Your task to perform on an android device: Toggle the flashlight Image 0: 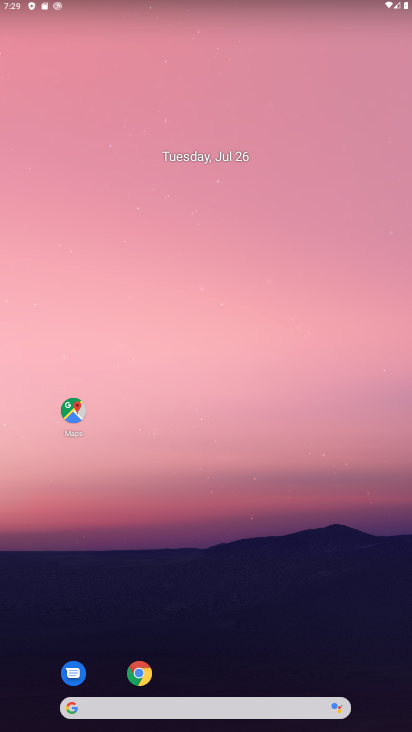
Step 0: drag from (339, 676) to (152, 0)
Your task to perform on an android device: Toggle the flashlight Image 1: 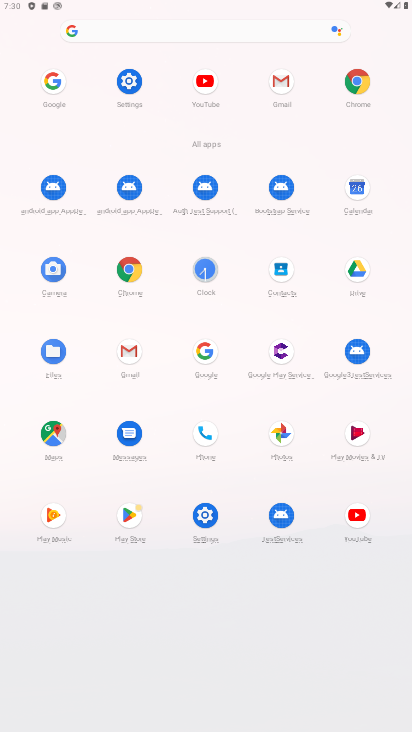
Step 1: click (208, 518)
Your task to perform on an android device: Toggle the flashlight Image 2: 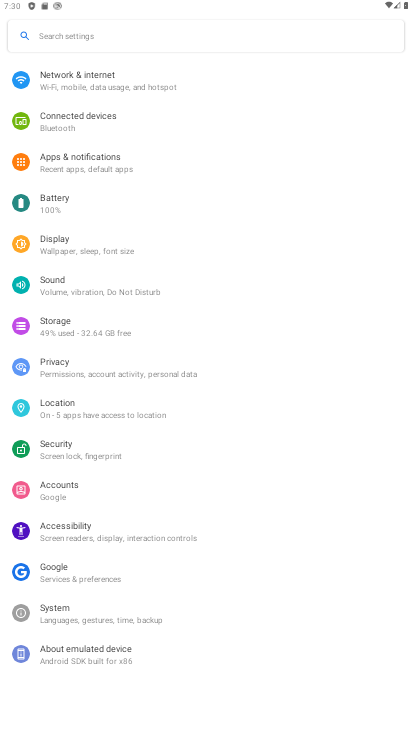
Step 2: task complete